Your task to perform on an android device: add a label to a message in the gmail app Image 0: 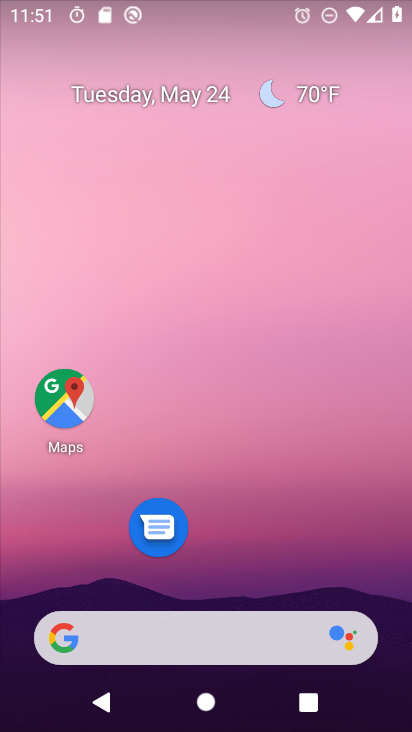
Step 0: drag from (258, 543) to (263, 97)
Your task to perform on an android device: add a label to a message in the gmail app Image 1: 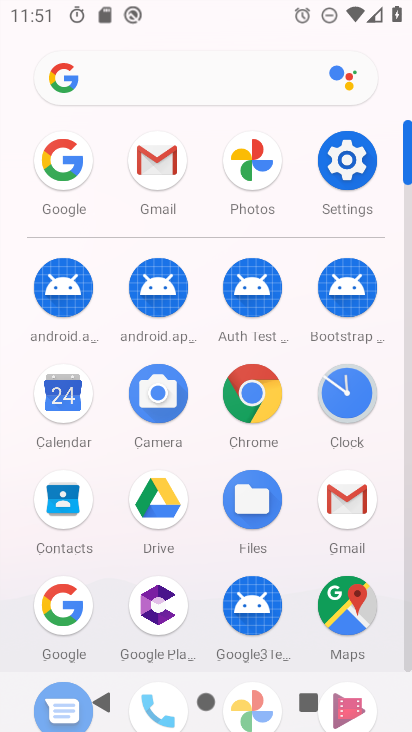
Step 1: click (348, 498)
Your task to perform on an android device: add a label to a message in the gmail app Image 2: 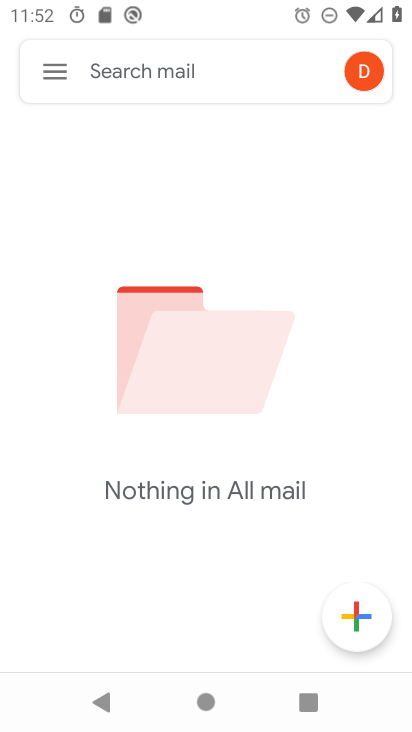
Step 2: task complete